Your task to perform on an android device: turn smart compose on in the gmail app Image 0: 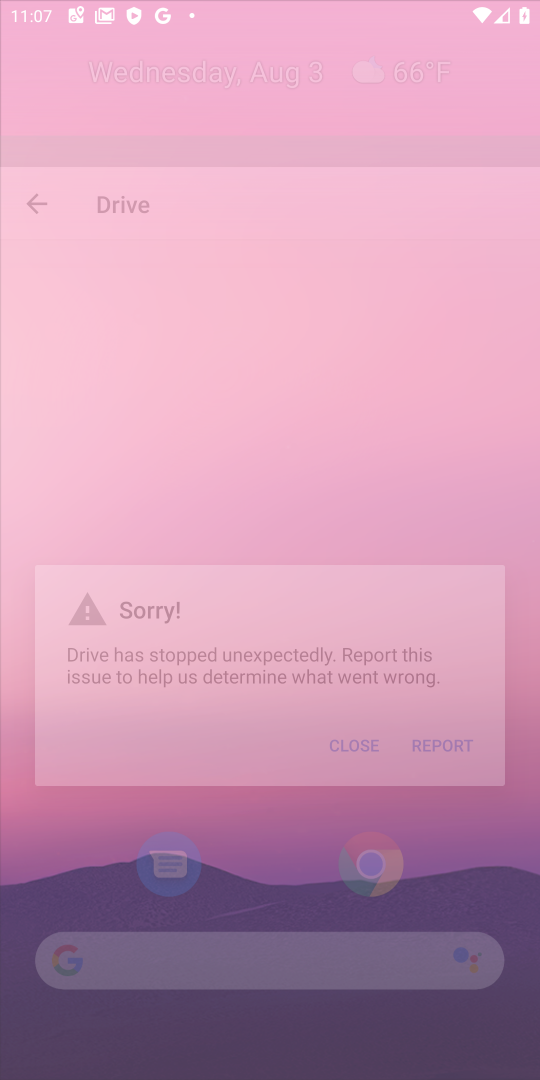
Step 0: press home button
Your task to perform on an android device: turn smart compose on in the gmail app Image 1: 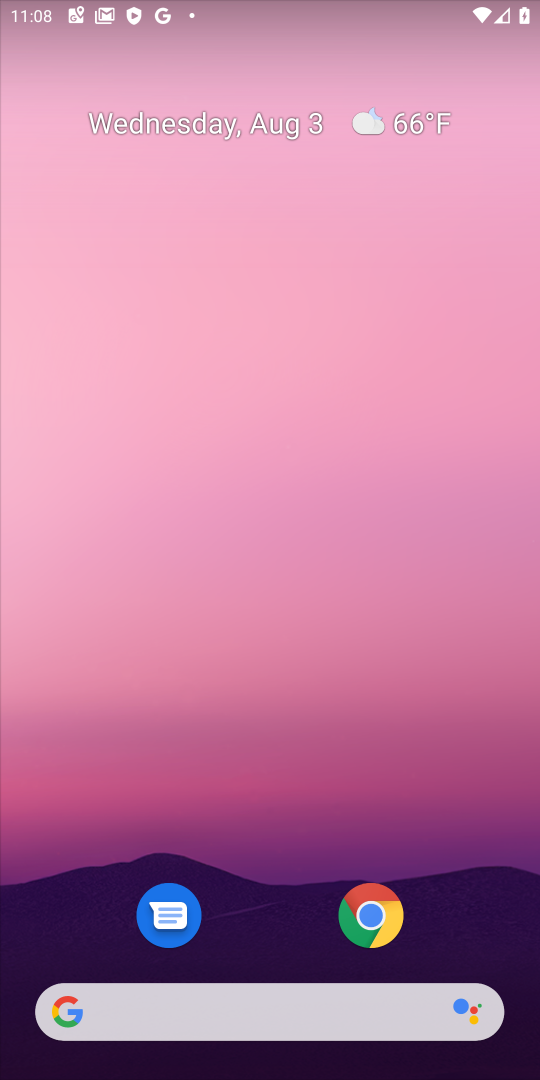
Step 1: drag from (242, 1032) to (310, 22)
Your task to perform on an android device: turn smart compose on in the gmail app Image 2: 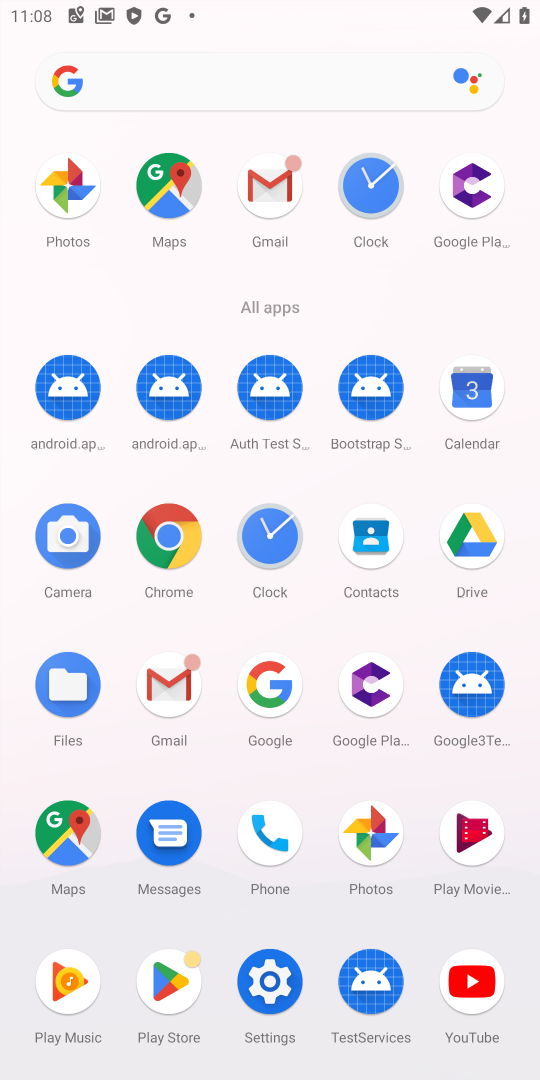
Step 2: click (266, 206)
Your task to perform on an android device: turn smart compose on in the gmail app Image 3: 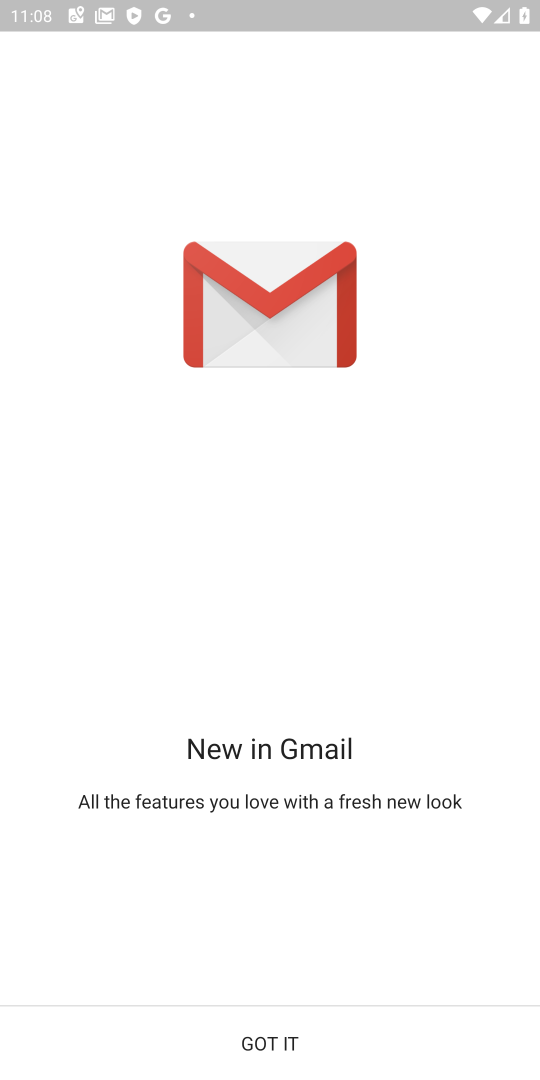
Step 3: click (262, 1029)
Your task to perform on an android device: turn smart compose on in the gmail app Image 4: 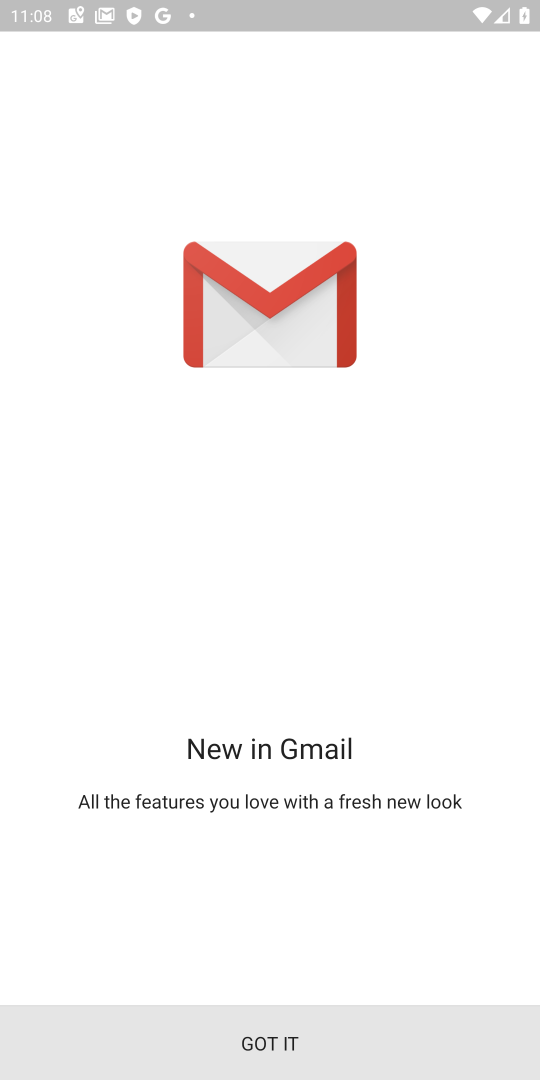
Step 4: click (262, 1029)
Your task to perform on an android device: turn smart compose on in the gmail app Image 5: 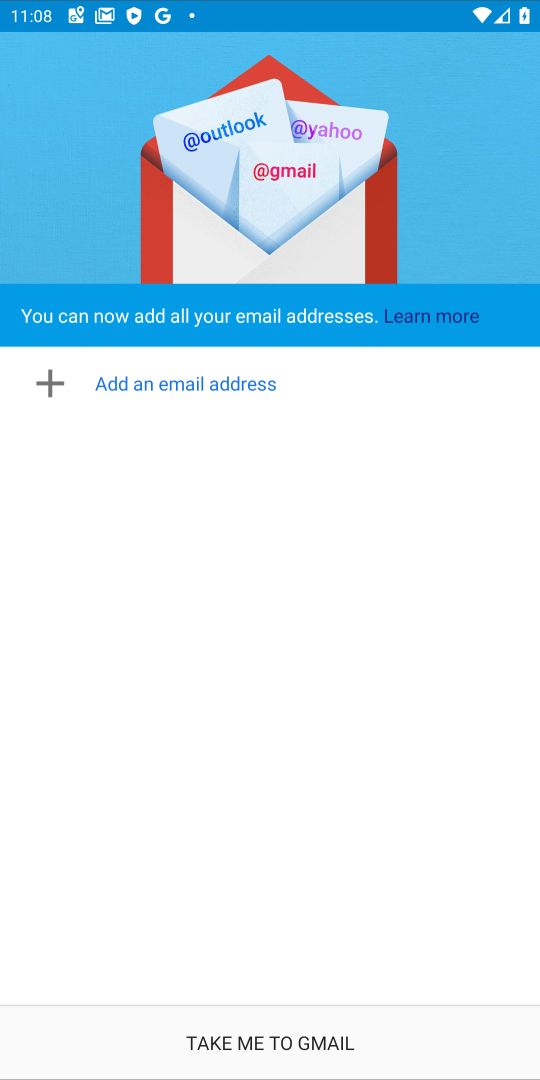
Step 5: click (262, 1029)
Your task to perform on an android device: turn smart compose on in the gmail app Image 6: 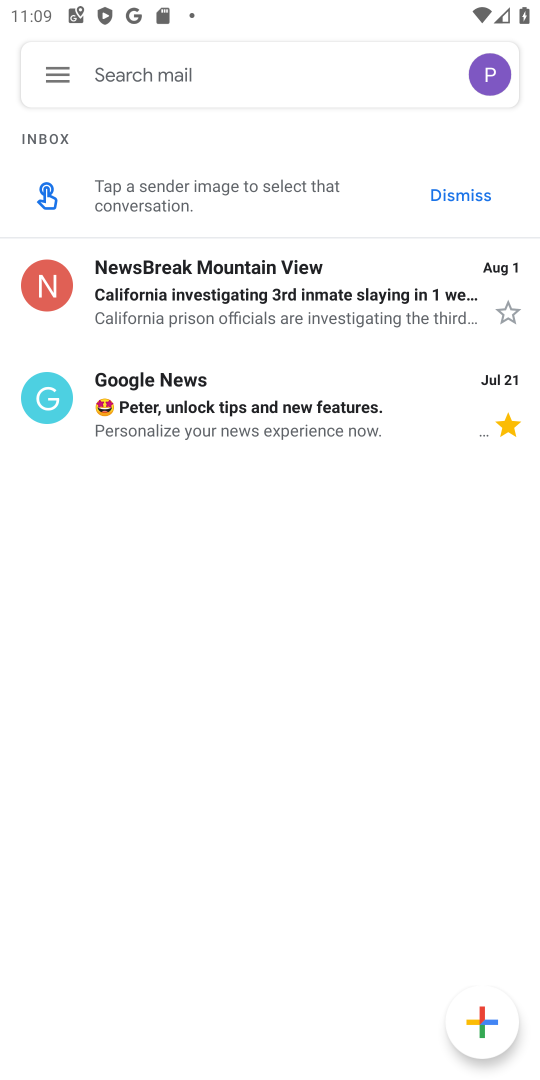
Step 6: click (45, 65)
Your task to perform on an android device: turn smart compose on in the gmail app Image 7: 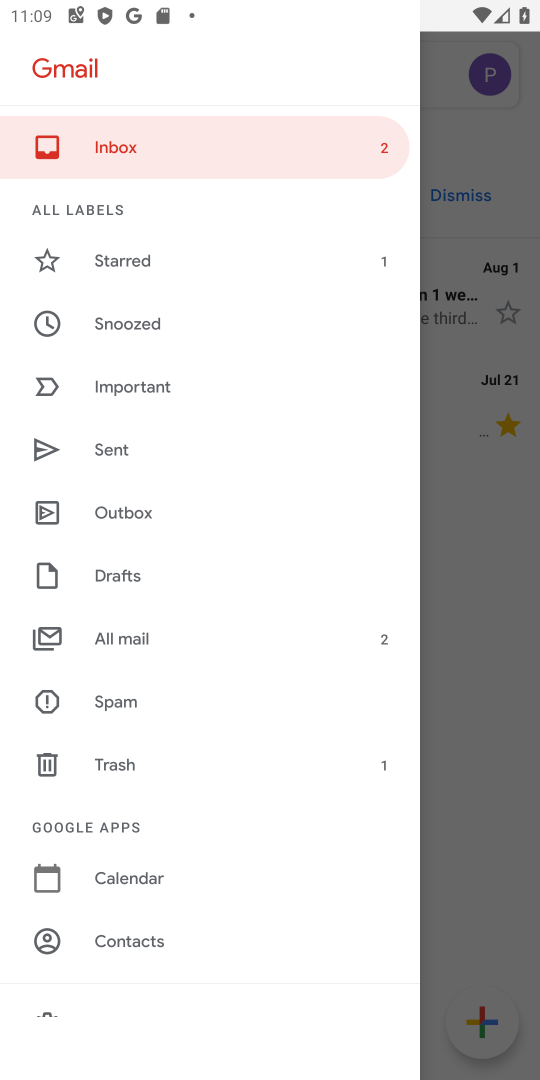
Step 7: drag from (124, 920) to (109, 706)
Your task to perform on an android device: turn smart compose on in the gmail app Image 8: 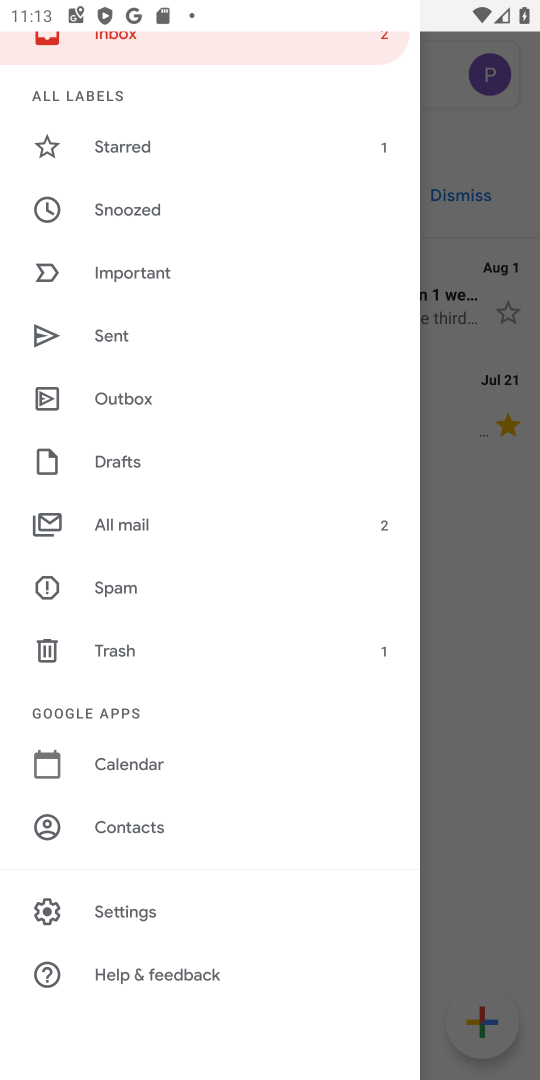
Step 8: click (147, 899)
Your task to perform on an android device: turn smart compose on in the gmail app Image 9: 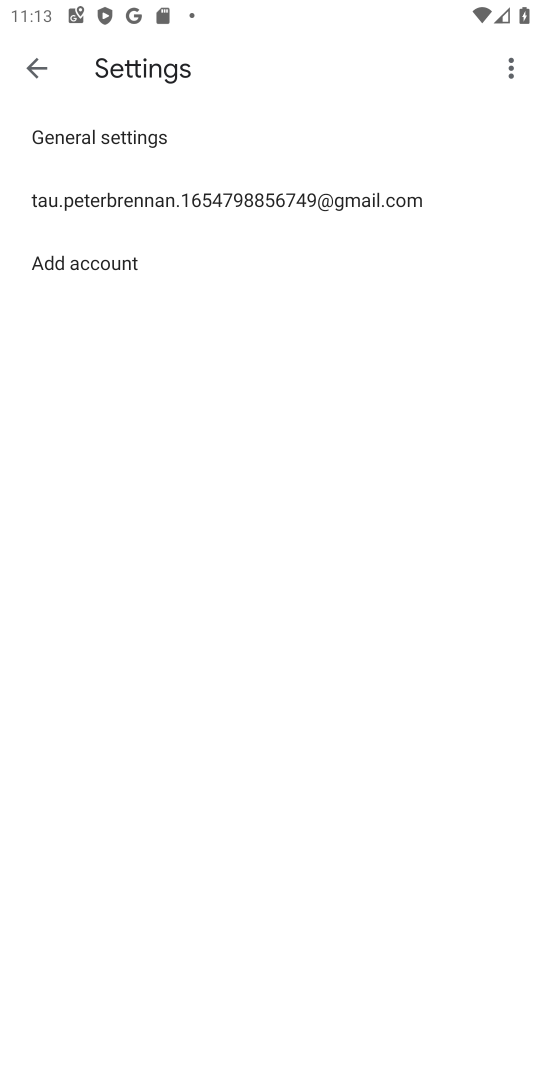
Step 9: click (223, 213)
Your task to perform on an android device: turn smart compose on in the gmail app Image 10: 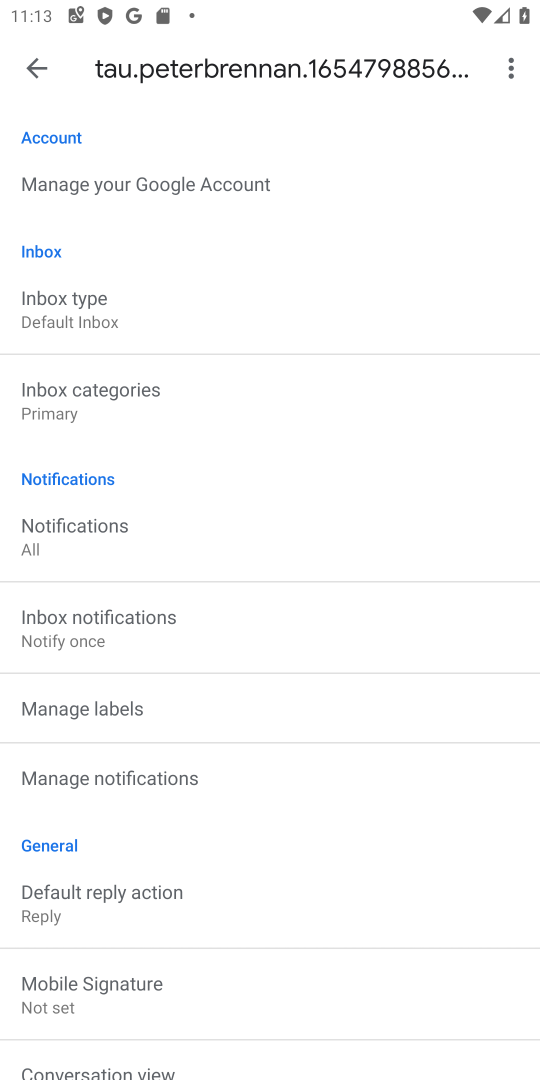
Step 10: task complete